Your task to perform on an android device: delete the emails in spam in the gmail app Image 0: 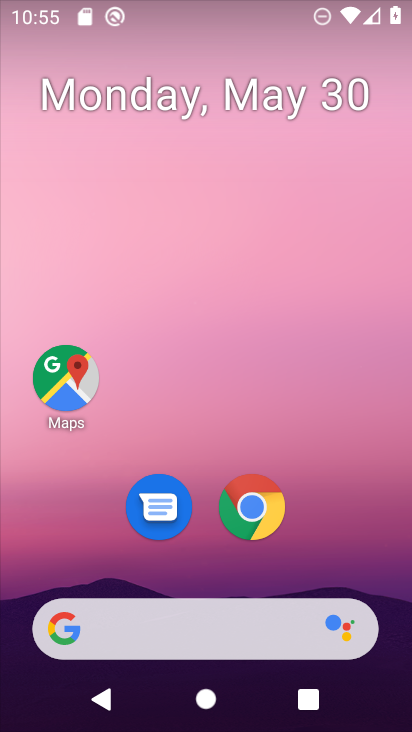
Step 0: drag from (387, 642) to (242, 66)
Your task to perform on an android device: delete the emails in spam in the gmail app Image 1: 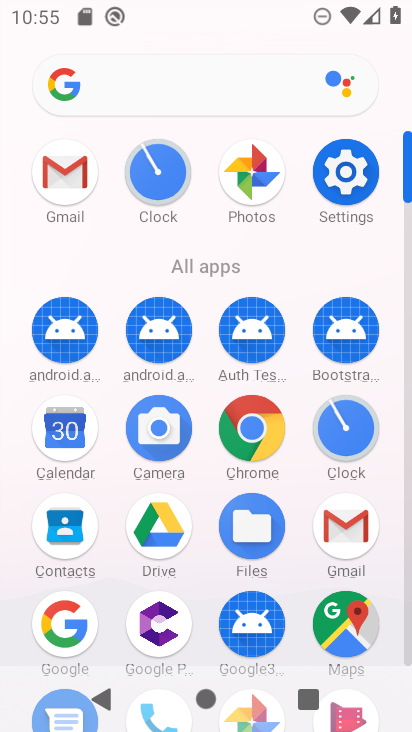
Step 1: click (340, 517)
Your task to perform on an android device: delete the emails in spam in the gmail app Image 2: 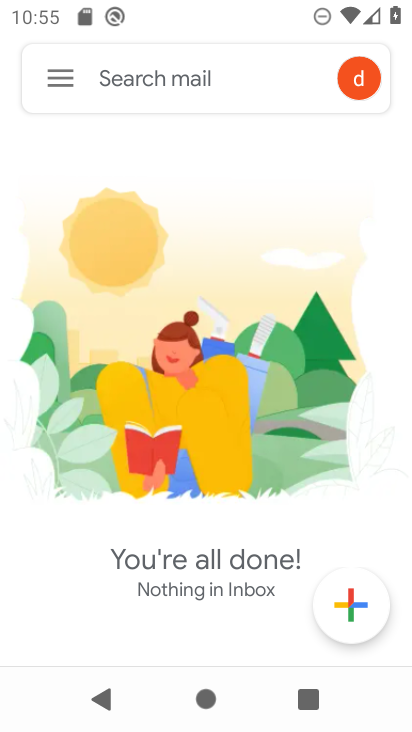
Step 2: click (69, 73)
Your task to perform on an android device: delete the emails in spam in the gmail app Image 3: 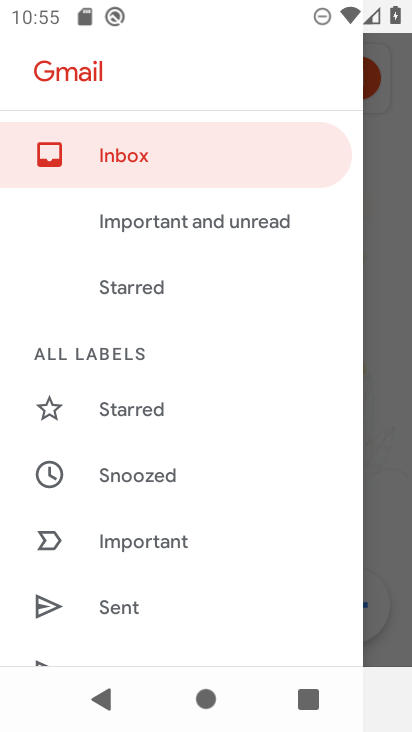
Step 3: drag from (130, 599) to (151, 183)
Your task to perform on an android device: delete the emails in spam in the gmail app Image 4: 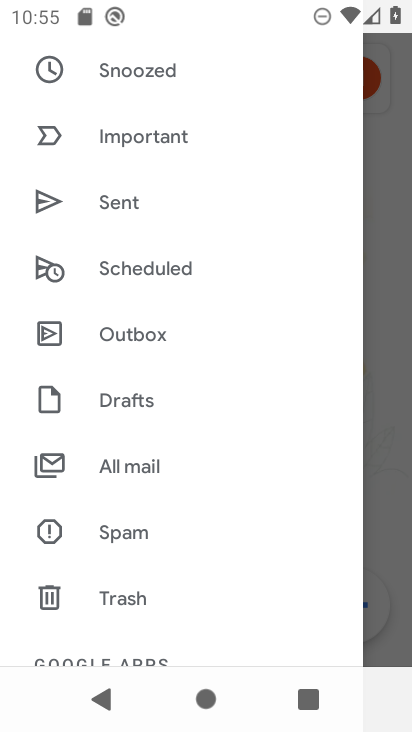
Step 4: click (182, 526)
Your task to perform on an android device: delete the emails in spam in the gmail app Image 5: 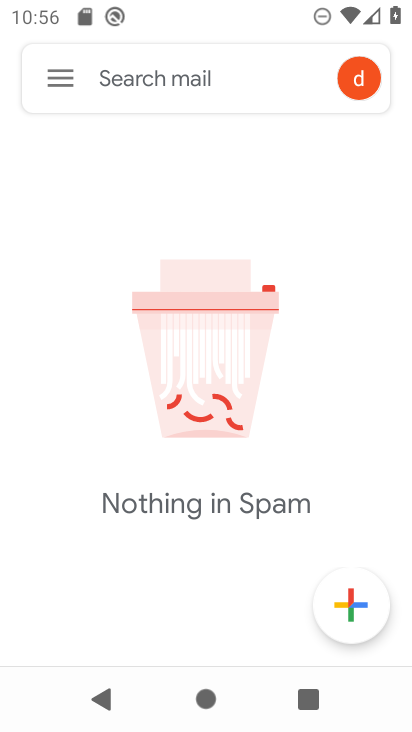
Step 5: click (53, 92)
Your task to perform on an android device: delete the emails in spam in the gmail app Image 6: 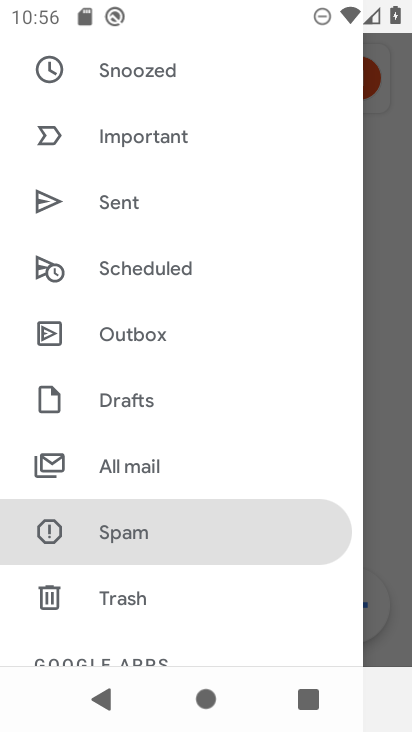
Step 6: click (192, 563)
Your task to perform on an android device: delete the emails in spam in the gmail app Image 7: 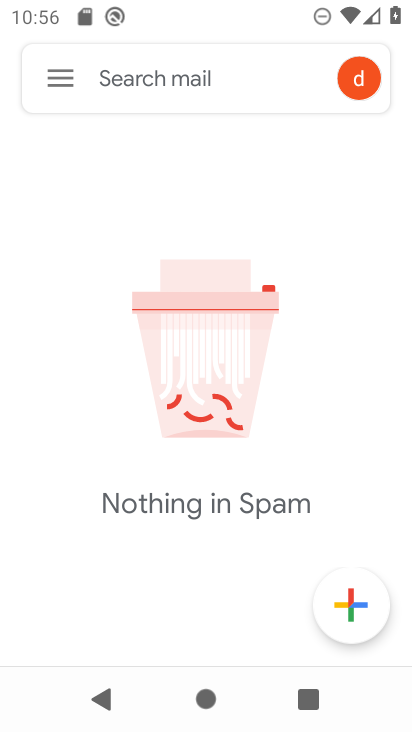
Step 7: task complete